Your task to perform on an android device: open app "Facebook" Image 0: 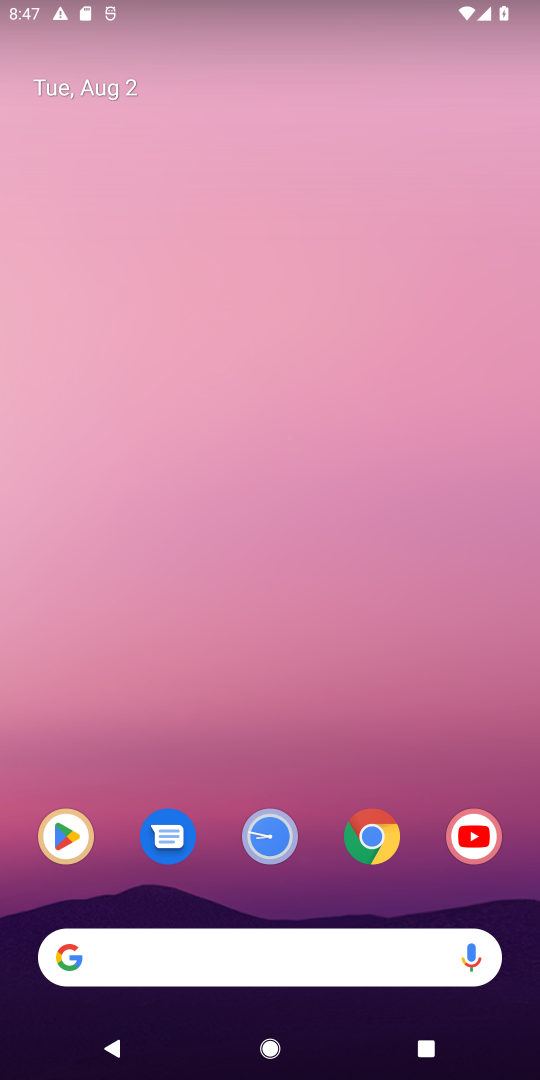
Step 0: drag from (444, 893) to (306, 228)
Your task to perform on an android device: open app "Facebook" Image 1: 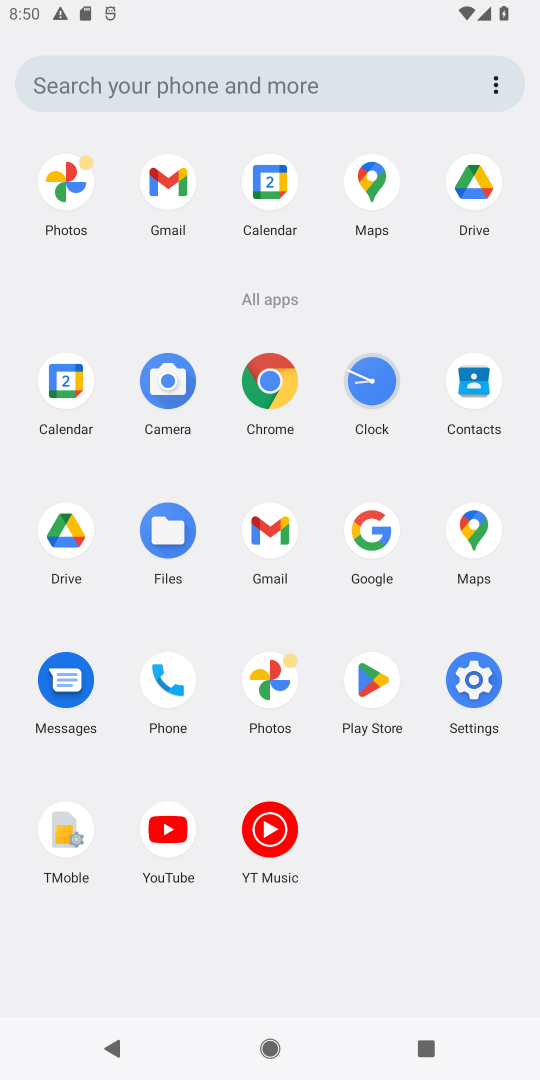
Step 1: click (391, 682)
Your task to perform on an android device: open app "Facebook" Image 2: 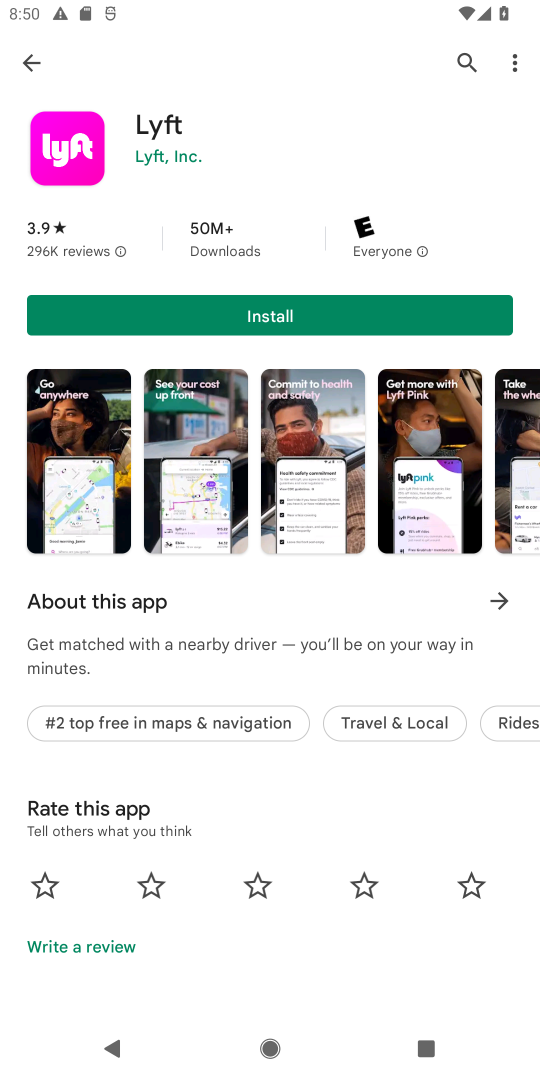
Step 2: press back button
Your task to perform on an android device: open app "Facebook" Image 3: 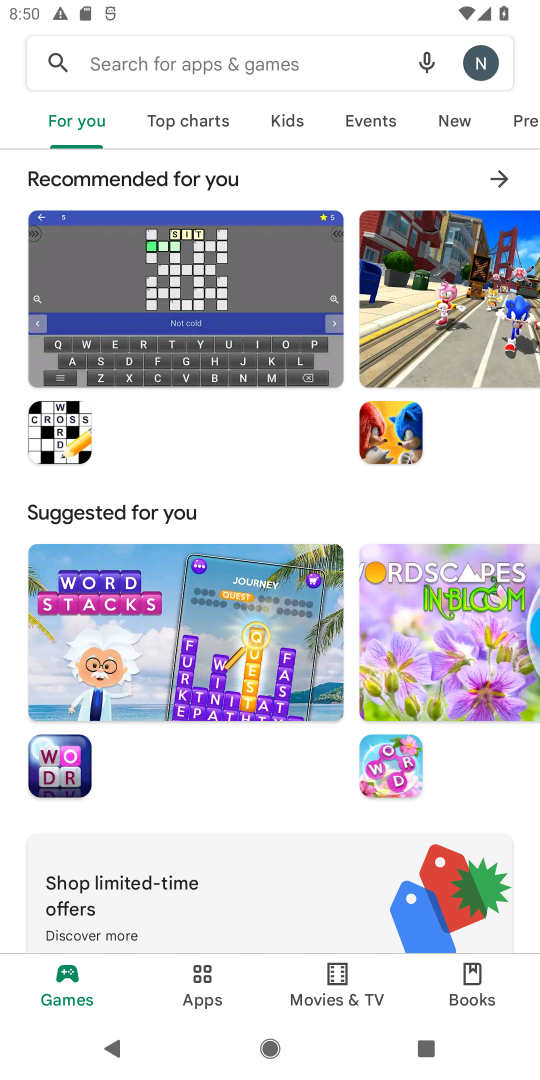
Step 3: click (134, 55)
Your task to perform on an android device: open app "Facebook" Image 4: 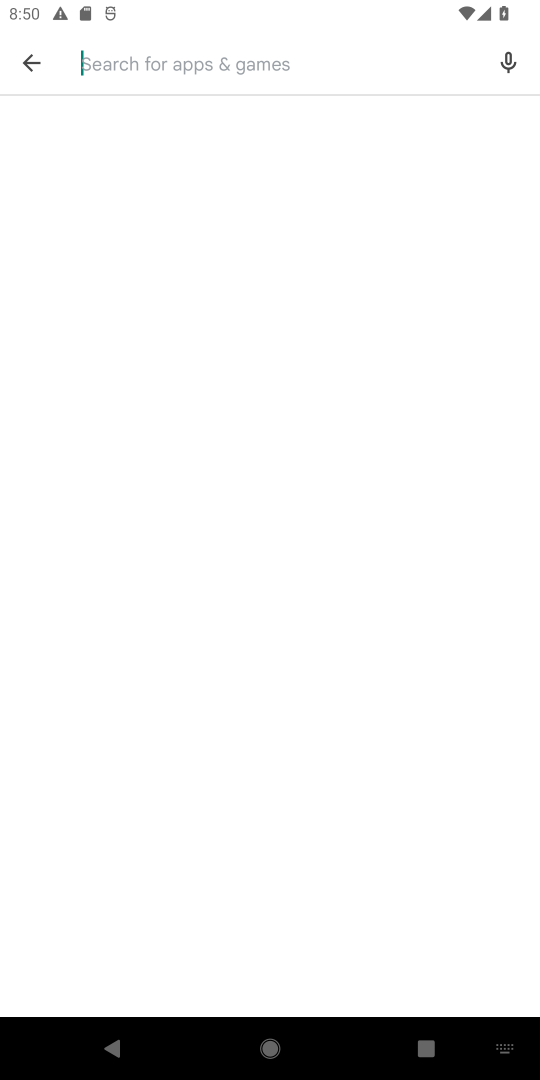
Step 4: type "Facebook"
Your task to perform on an android device: open app "Facebook" Image 5: 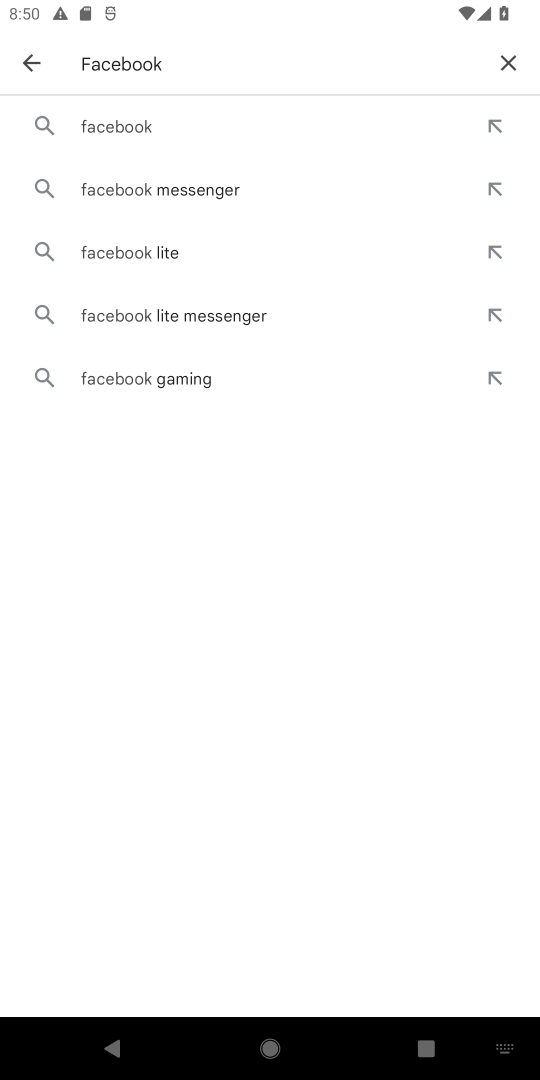
Step 5: click (108, 127)
Your task to perform on an android device: open app "Facebook" Image 6: 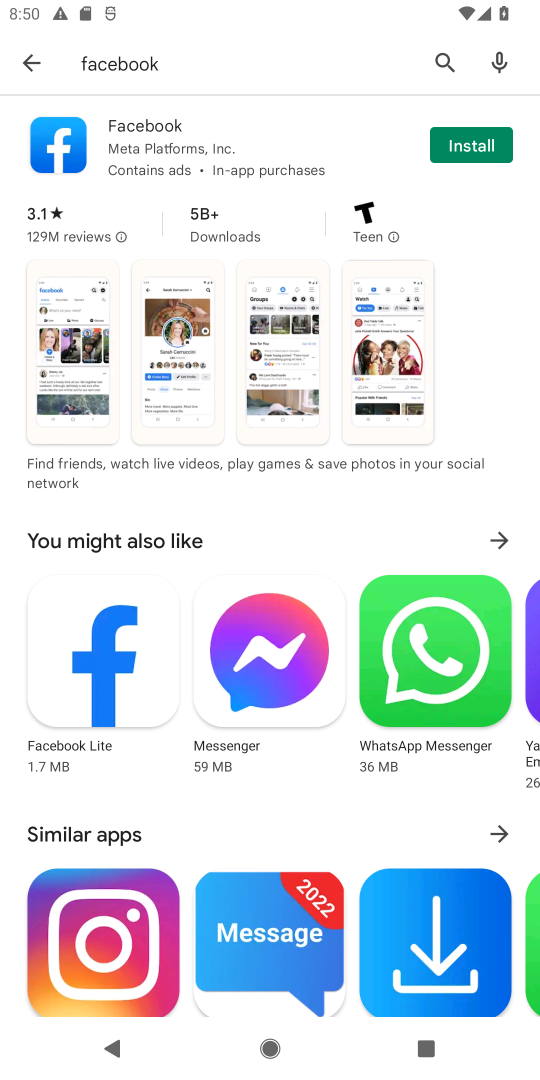
Step 6: task complete